Your task to perform on an android device: turn on the 12-hour format for clock Image 0: 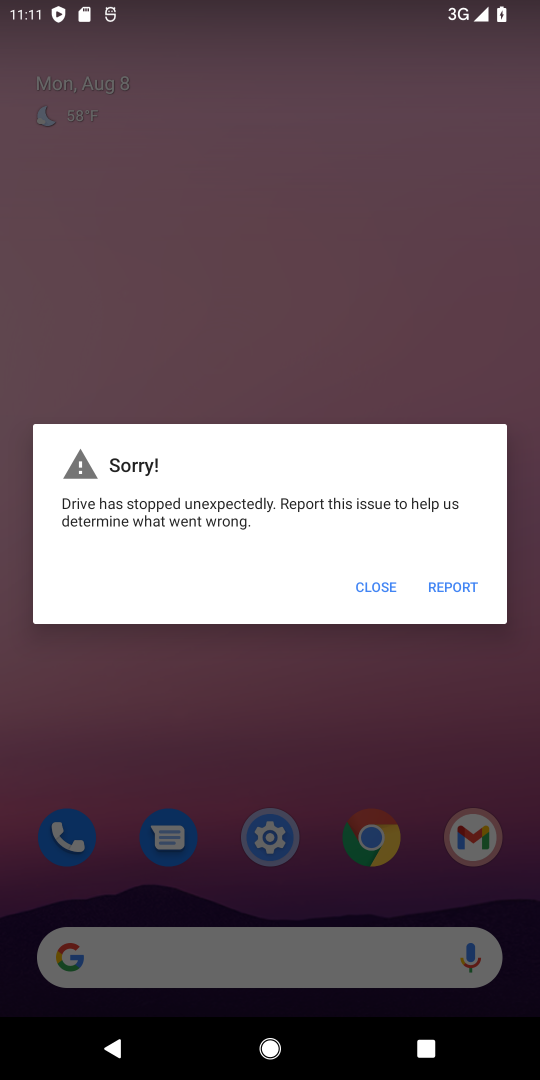
Step 0: press home button
Your task to perform on an android device: turn on the 12-hour format for clock Image 1: 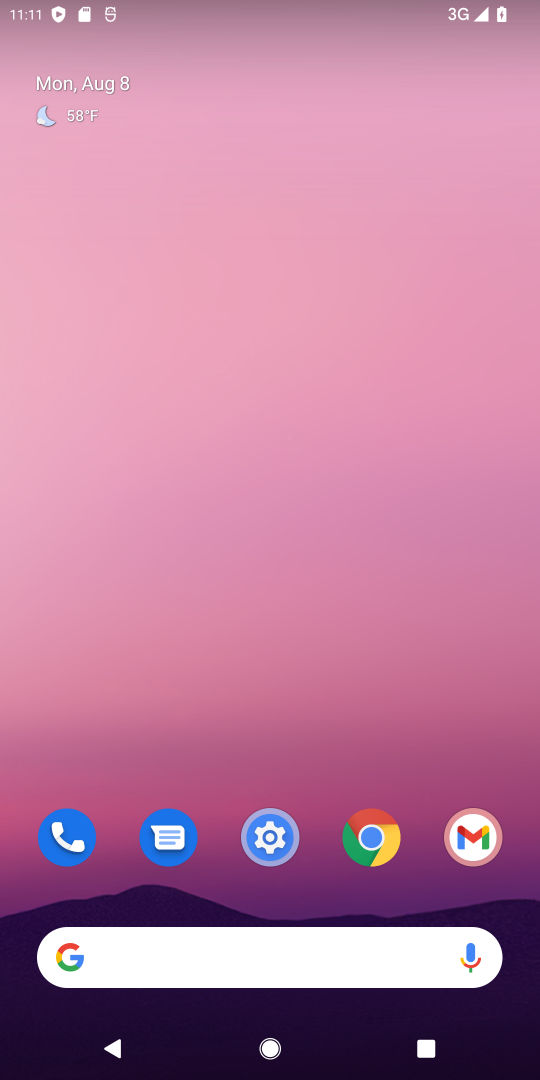
Step 1: drag from (505, 532) to (480, 208)
Your task to perform on an android device: turn on the 12-hour format for clock Image 2: 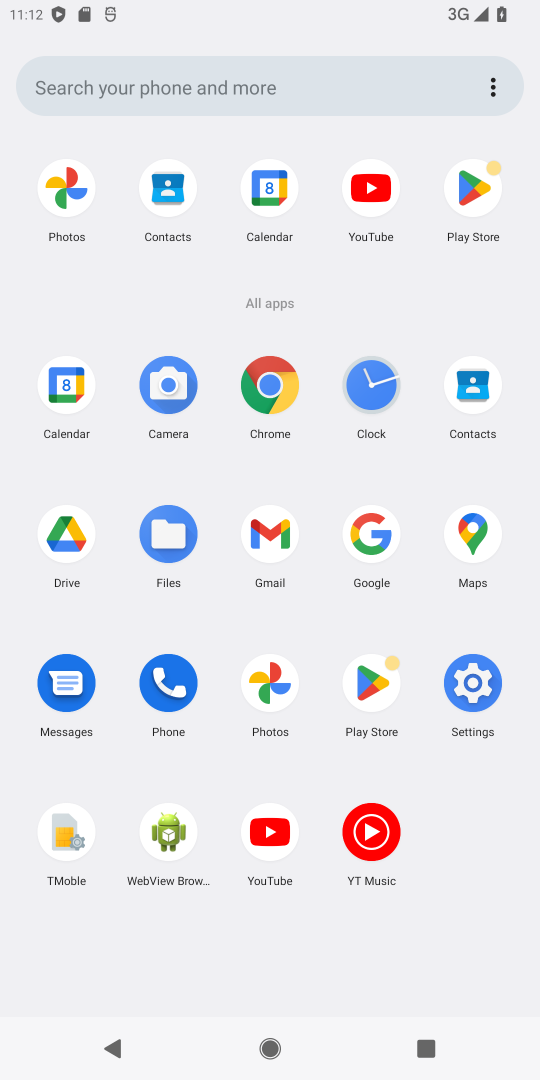
Step 2: click (377, 373)
Your task to perform on an android device: turn on the 12-hour format for clock Image 3: 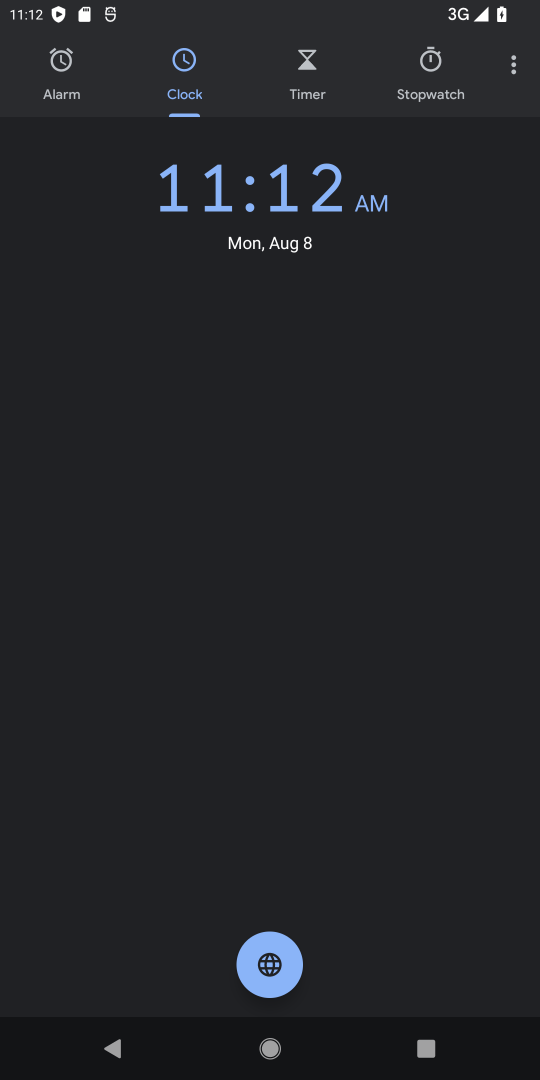
Step 3: click (510, 69)
Your task to perform on an android device: turn on the 12-hour format for clock Image 4: 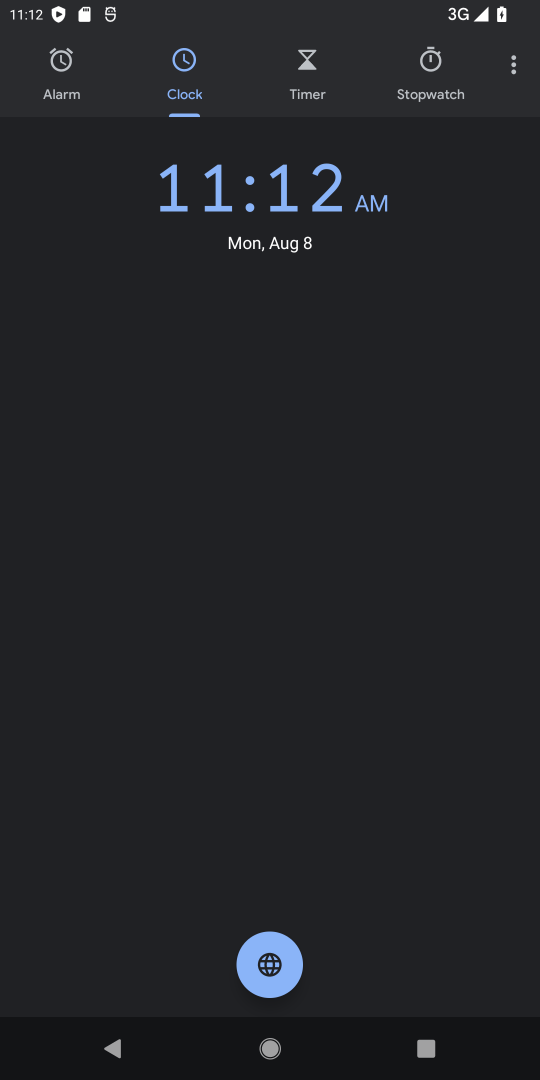
Step 4: click (513, 63)
Your task to perform on an android device: turn on the 12-hour format for clock Image 5: 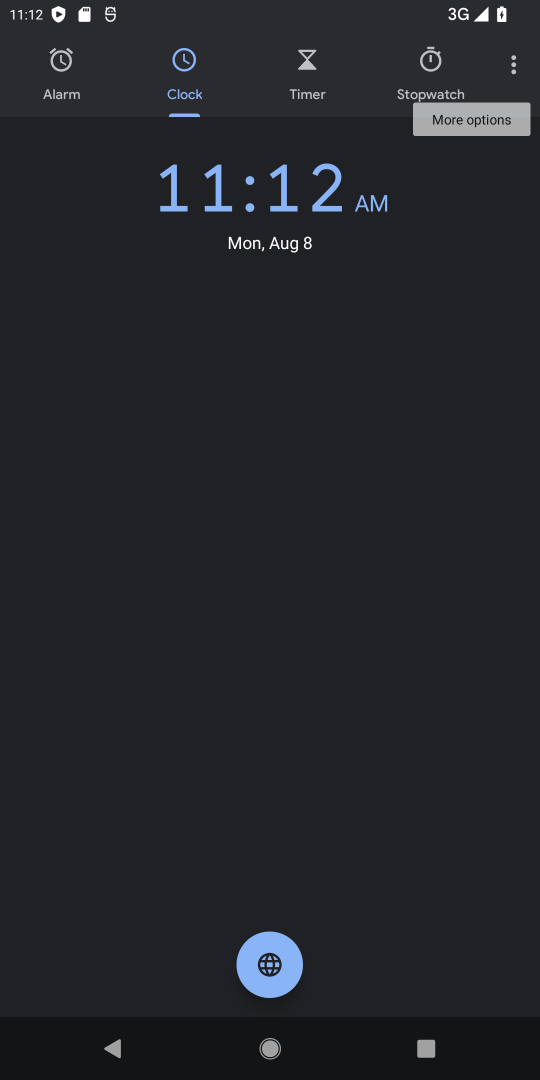
Step 5: click (513, 63)
Your task to perform on an android device: turn on the 12-hour format for clock Image 6: 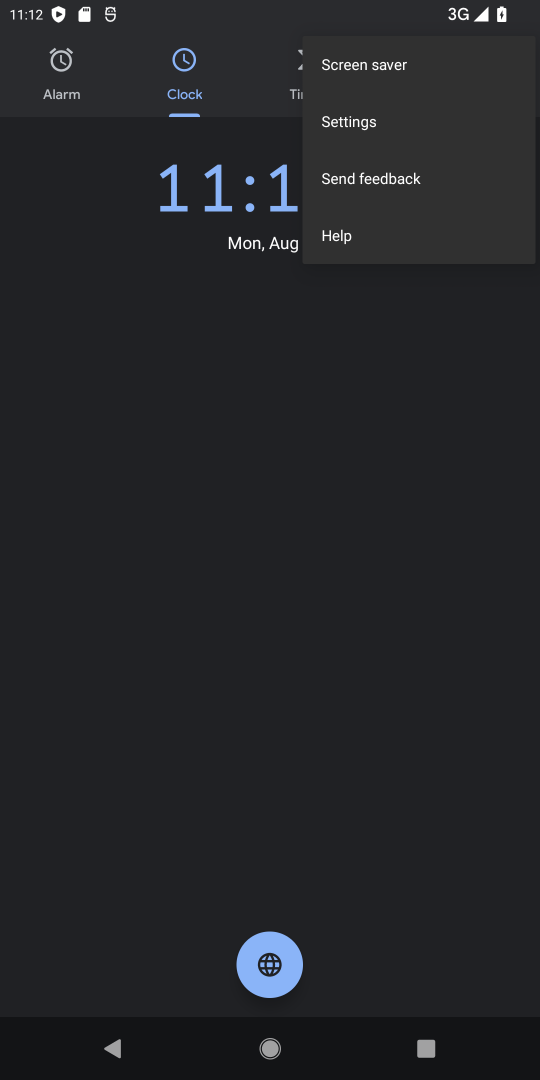
Step 6: click (349, 125)
Your task to perform on an android device: turn on the 12-hour format for clock Image 7: 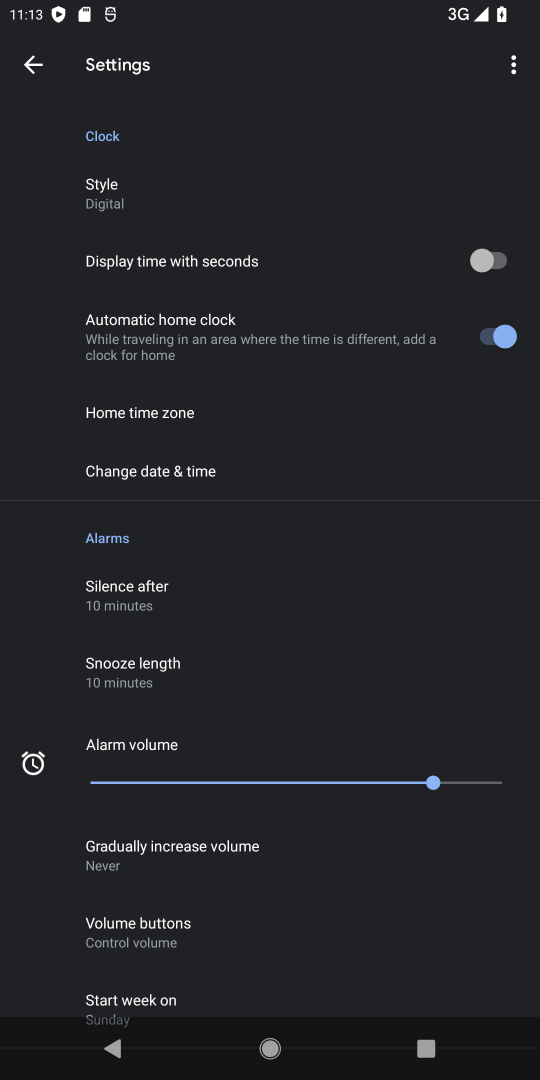
Step 7: click (131, 462)
Your task to perform on an android device: turn on the 12-hour format for clock Image 8: 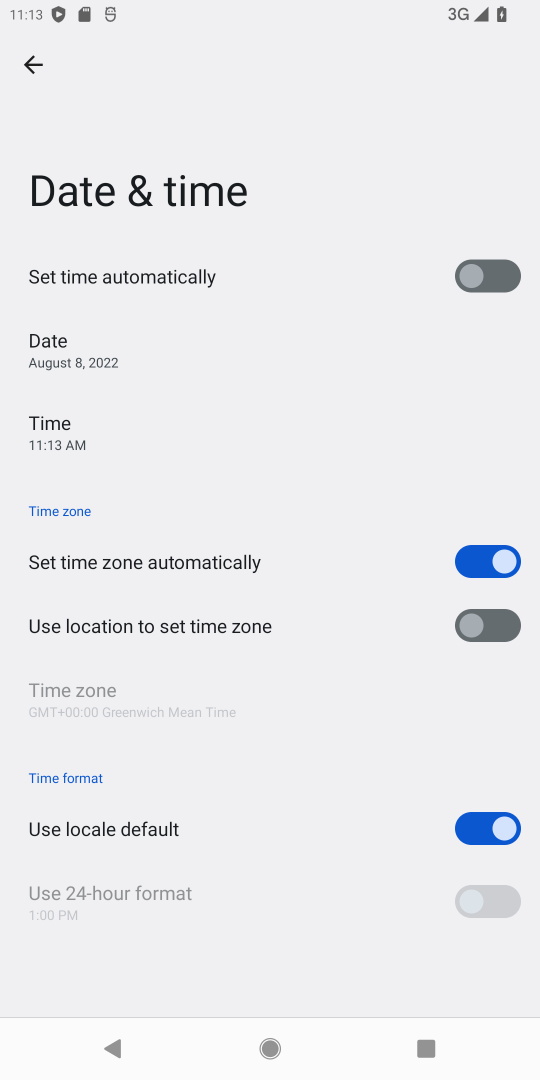
Step 8: task complete